Your task to perform on an android device: all mails in gmail Image 0: 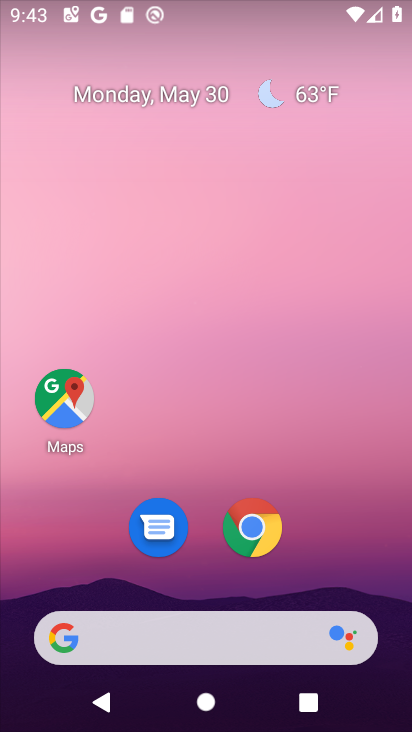
Step 0: drag from (236, 581) to (210, 219)
Your task to perform on an android device: all mails in gmail Image 1: 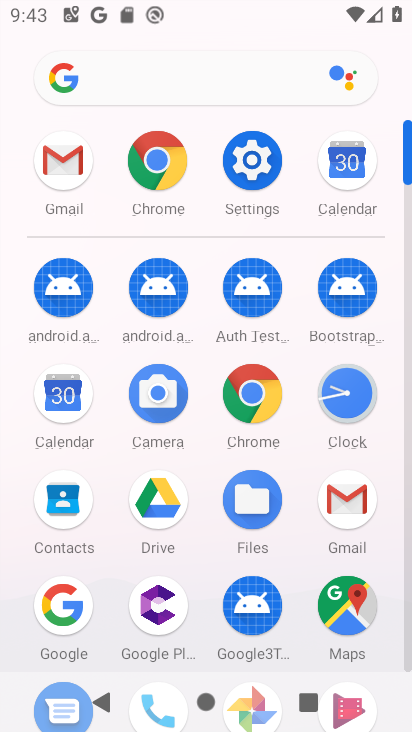
Step 1: click (59, 164)
Your task to perform on an android device: all mails in gmail Image 2: 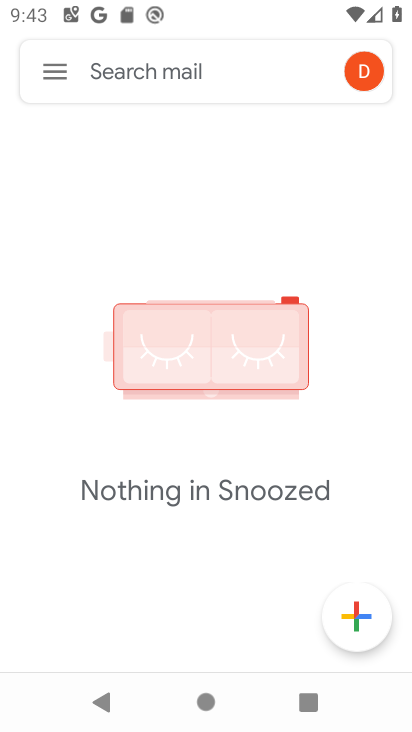
Step 2: click (51, 63)
Your task to perform on an android device: all mails in gmail Image 3: 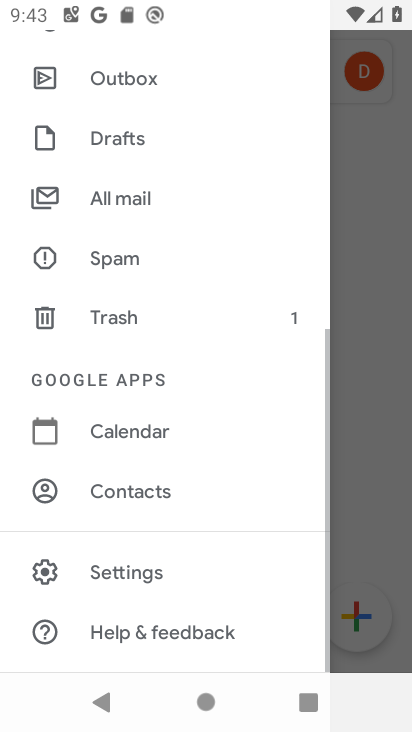
Step 3: click (113, 201)
Your task to perform on an android device: all mails in gmail Image 4: 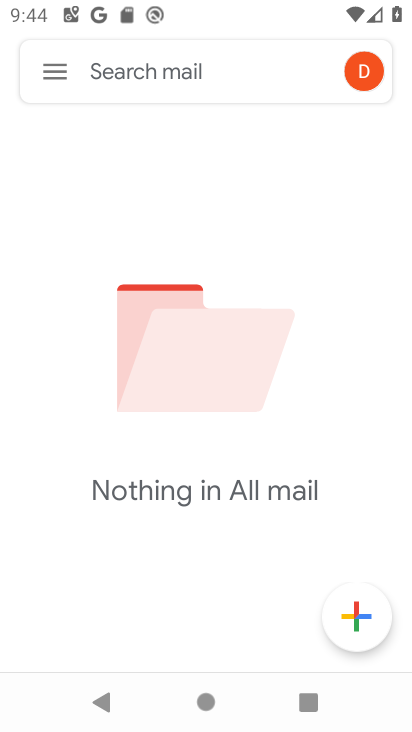
Step 4: task complete